Your task to perform on an android device: Go to Yahoo.com Image 0: 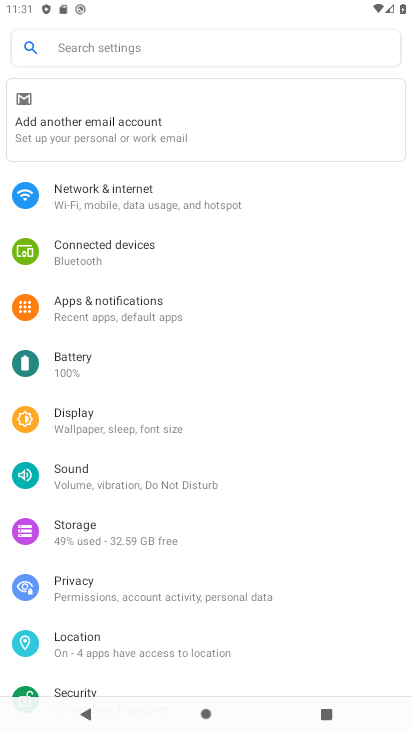
Step 0: press home button
Your task to perform on an android device: Go to Yahoo.com Image 1: 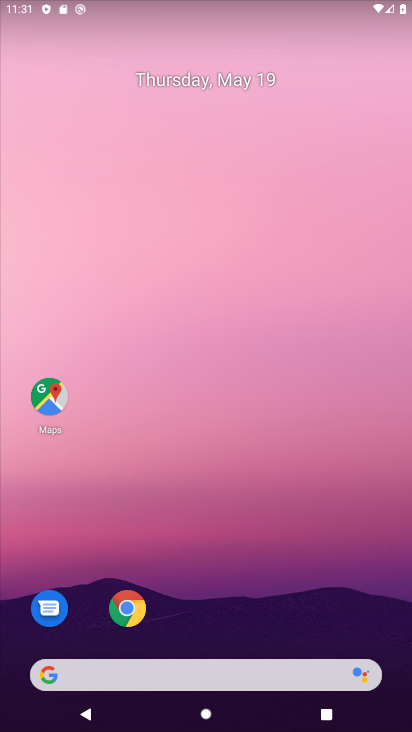
Step 1: drag from (356, 614) to (354, 285)
Your task to perform on an android device: Go to Yahoo.com Image 2: 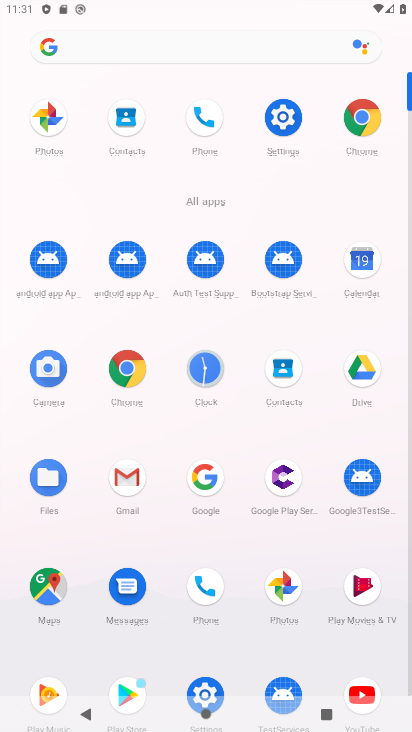
Step 2: click (145, 393)
Your task to perform on an android device: Go to Yahoo.com Image 3: 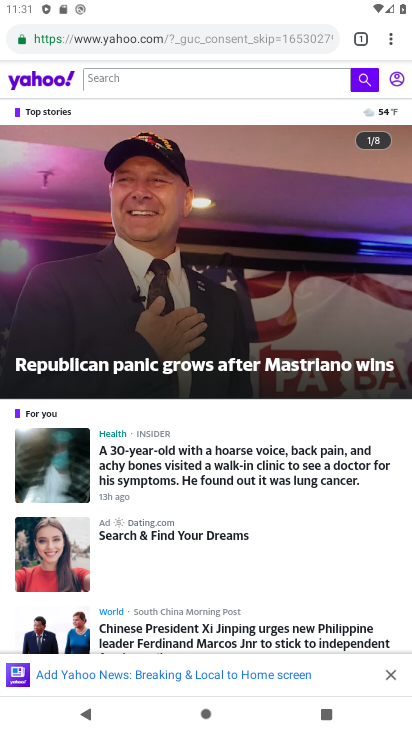
Step 3: task complete